Your task to perform on an android device: find photos in the google photos app Image 0: 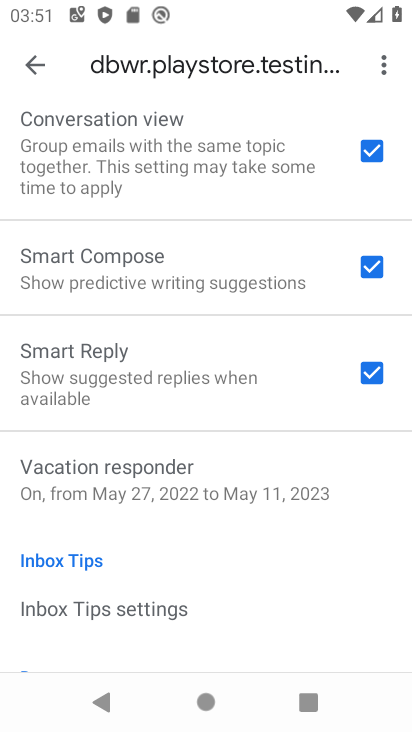
Step 0: press home button
Your task to perform on an android device: find photos in the google photos app Image 1: 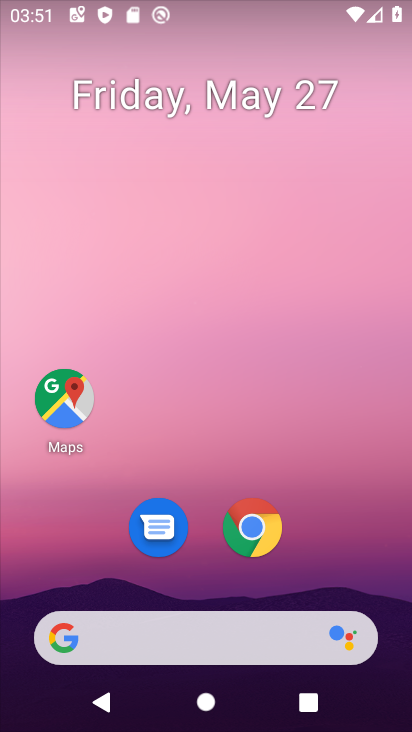
Step 1: drag from (324, 532) to (324, 154)
Your task to perform on an android device: find photos in the google photos app Image 2: 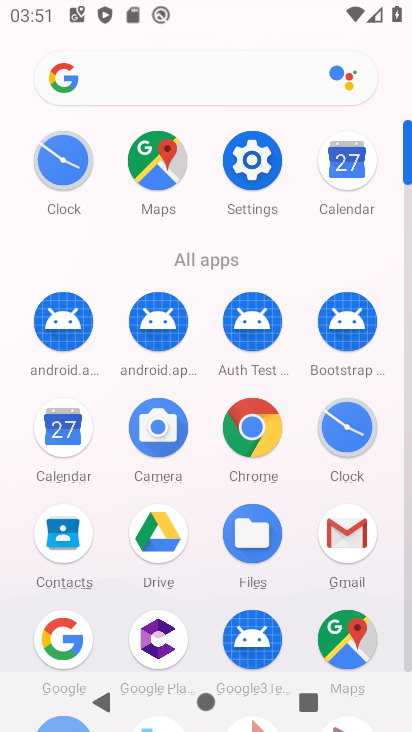
Step 2: click (409, 560)
Your task to perform on an android device: find photos in the google photos app Image 3: 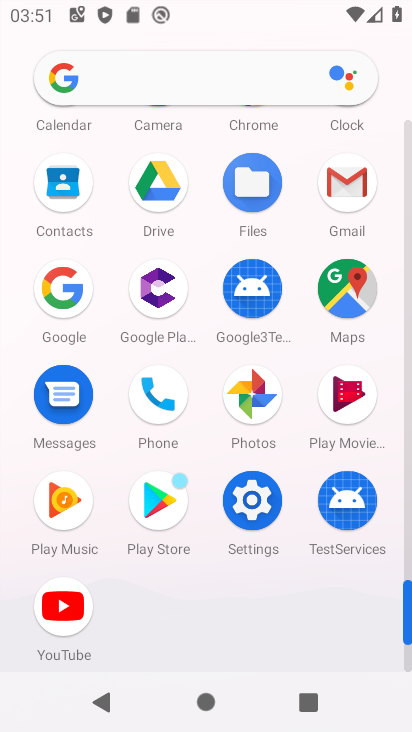
Step 3: click (264, 397)
Your task to perform on an android device: find photos in the google photos app Image 4: 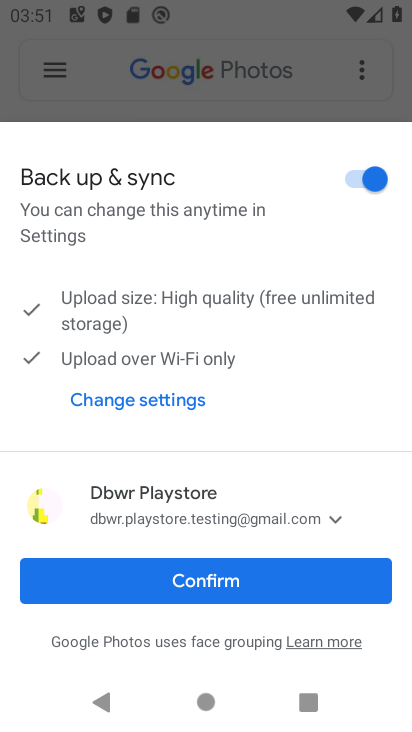
Step 4: click (319, 577)
Your task to perform on an android device: find photos in the google photos app Image 5: 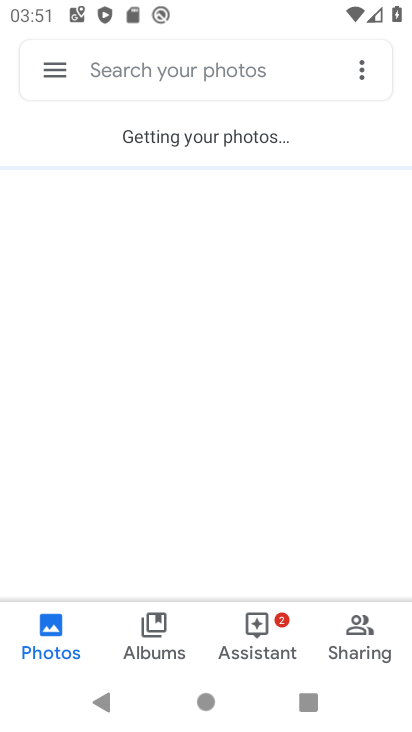
Step 5: task complete